Your task to perform on an android device: Open sound settings Image 0: 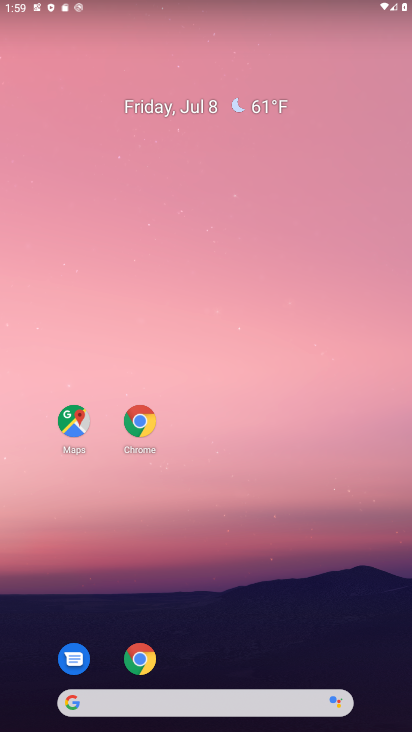
Step 0: drag from (235, 675) to (135, 117)
Your task to perform on an android device: Open sound settings Image 1: 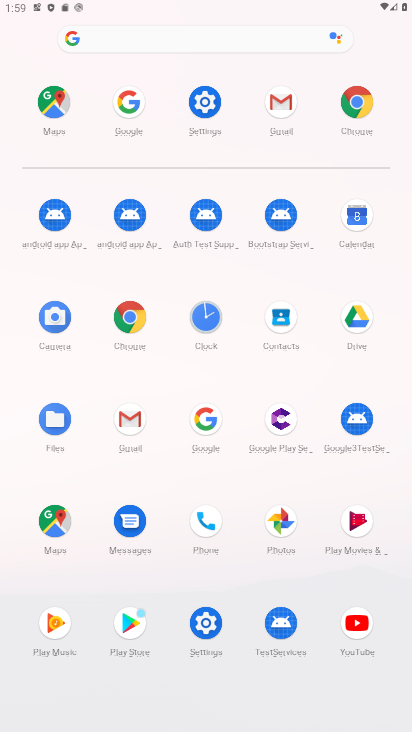
Step 1: click (181, 110)
Your task to perform on an android device: Open sound settings Image 2: 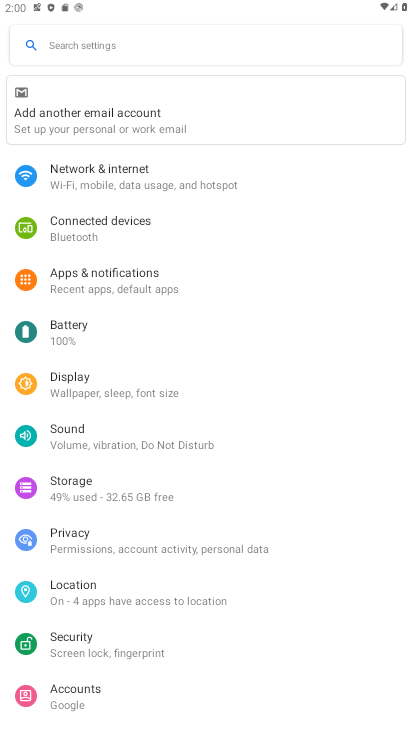
Step 2: click (78, 449)
Your task to perform on an android device: Open sound settings Image 3: 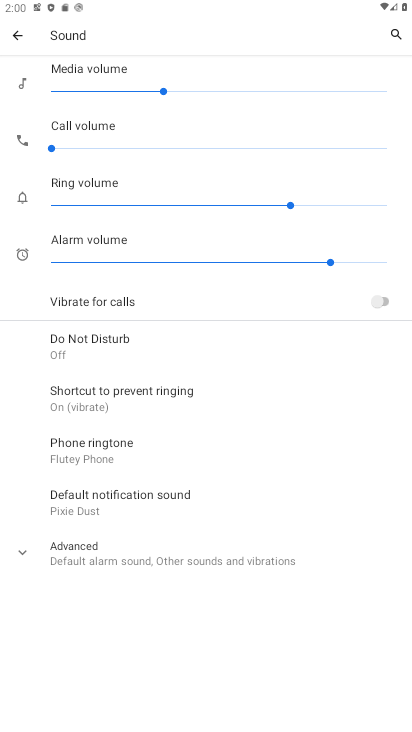
Step 3: task complete